Your task to perform on an android device: Search for usb-c to usb-a on amazon, select the first entry, add it to the cart, then select checkout. Image 0: 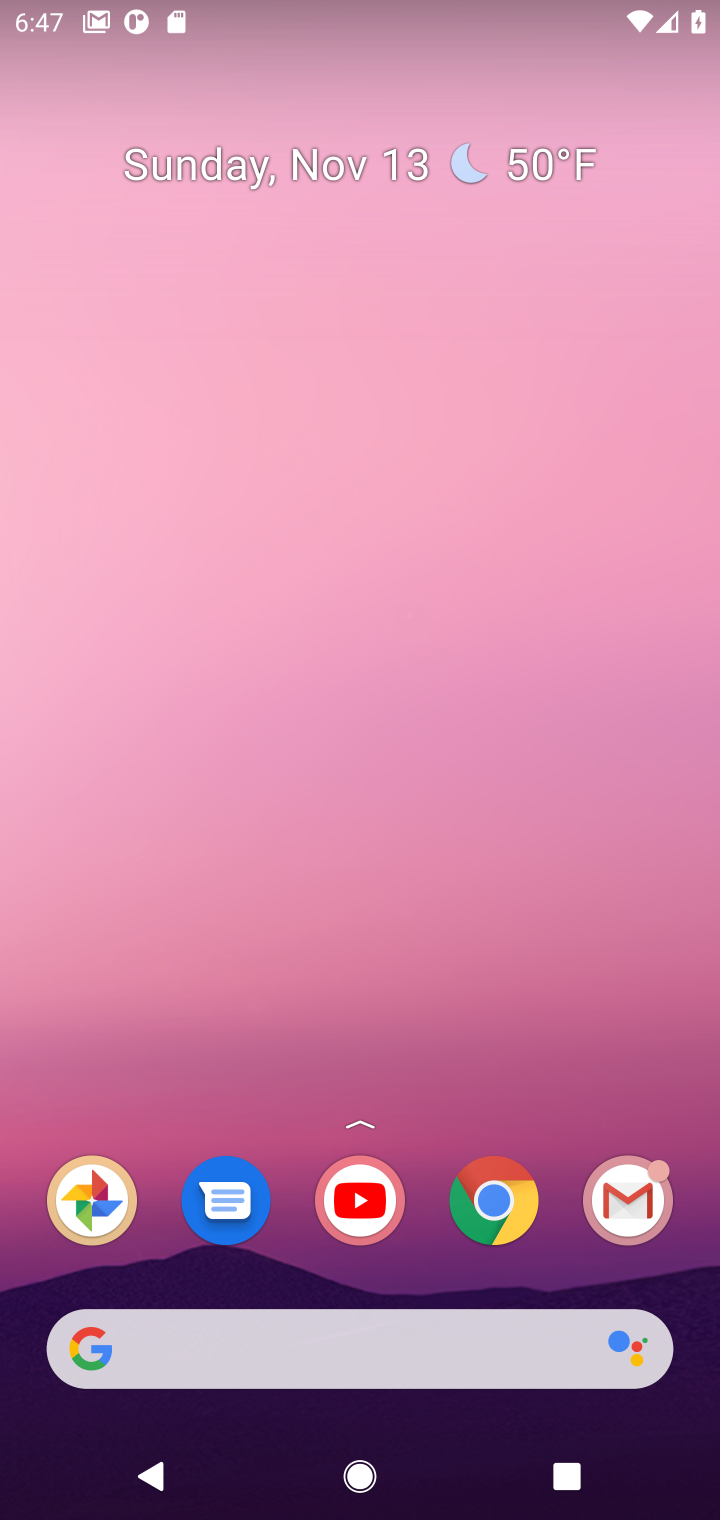
Step 0: click (507, 1185)
Your task to perform on an android device: Search for usb-c to usb-a on amazon, select the first entry, add it to the cart, then select checkout. Image 1: 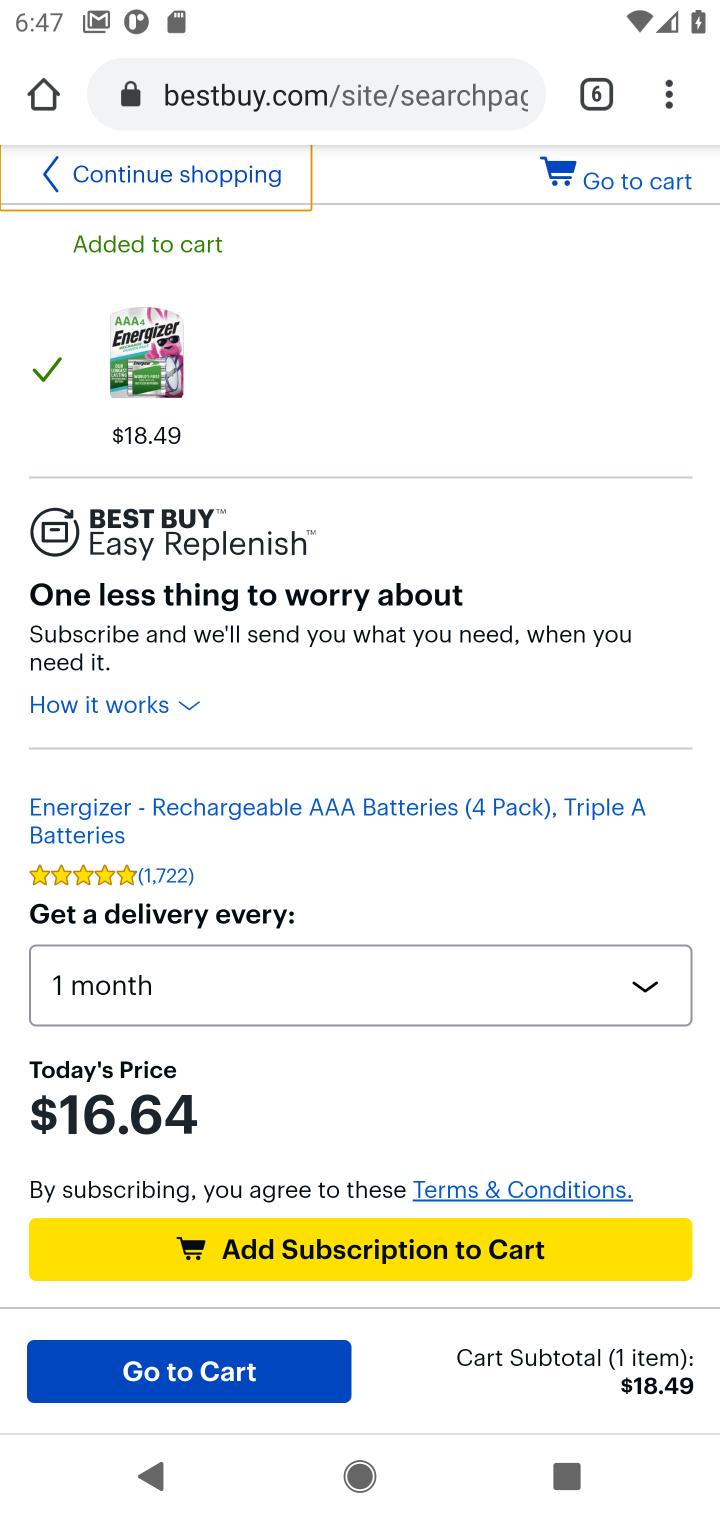
Step 1: click (604, 92)
Your task to perform on an android device: Search for usb-c to usb-a on amazon, select the first entry, add it to the cart, then select checkout. Image 2: 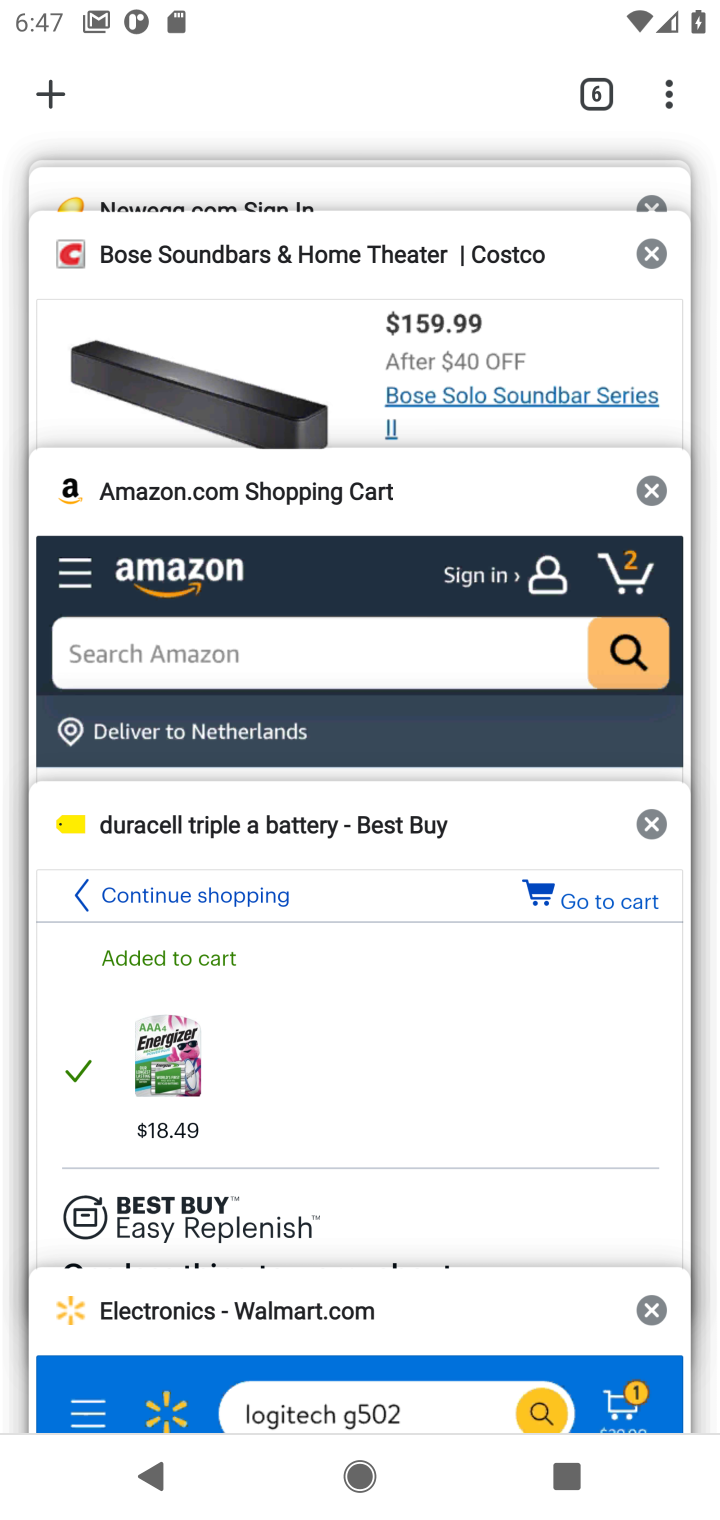
Step 2: click (394, 660)
Your task to perform on an android device: Search for usb-c to usb-a on amazon, select the first entry, add it to the cart, then select checkout. Image 3: 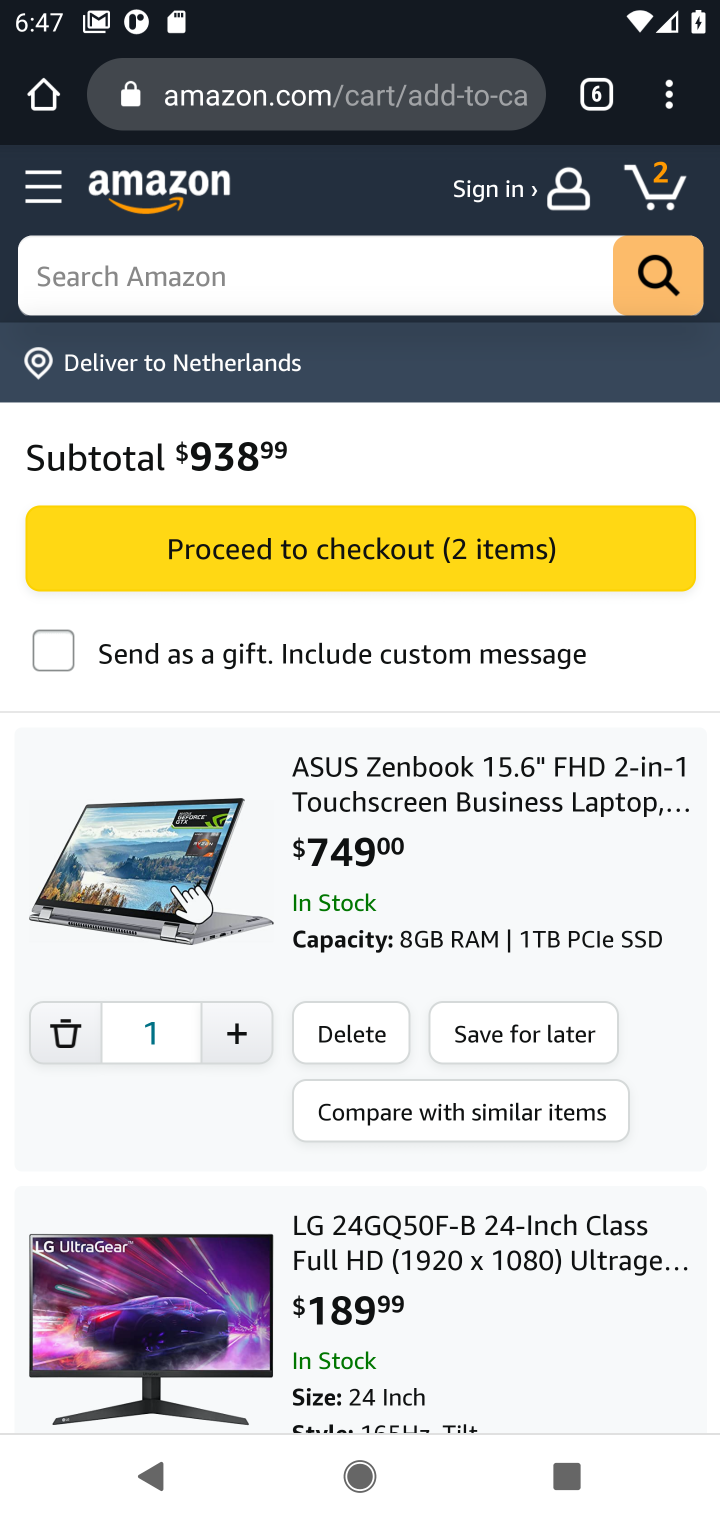
Step 3: click (199, 264)
Your task to perform on an android device: Search for usb-c to usb-a on amazon, select the first entry, add it to the cart, then select checkout. Image 4: 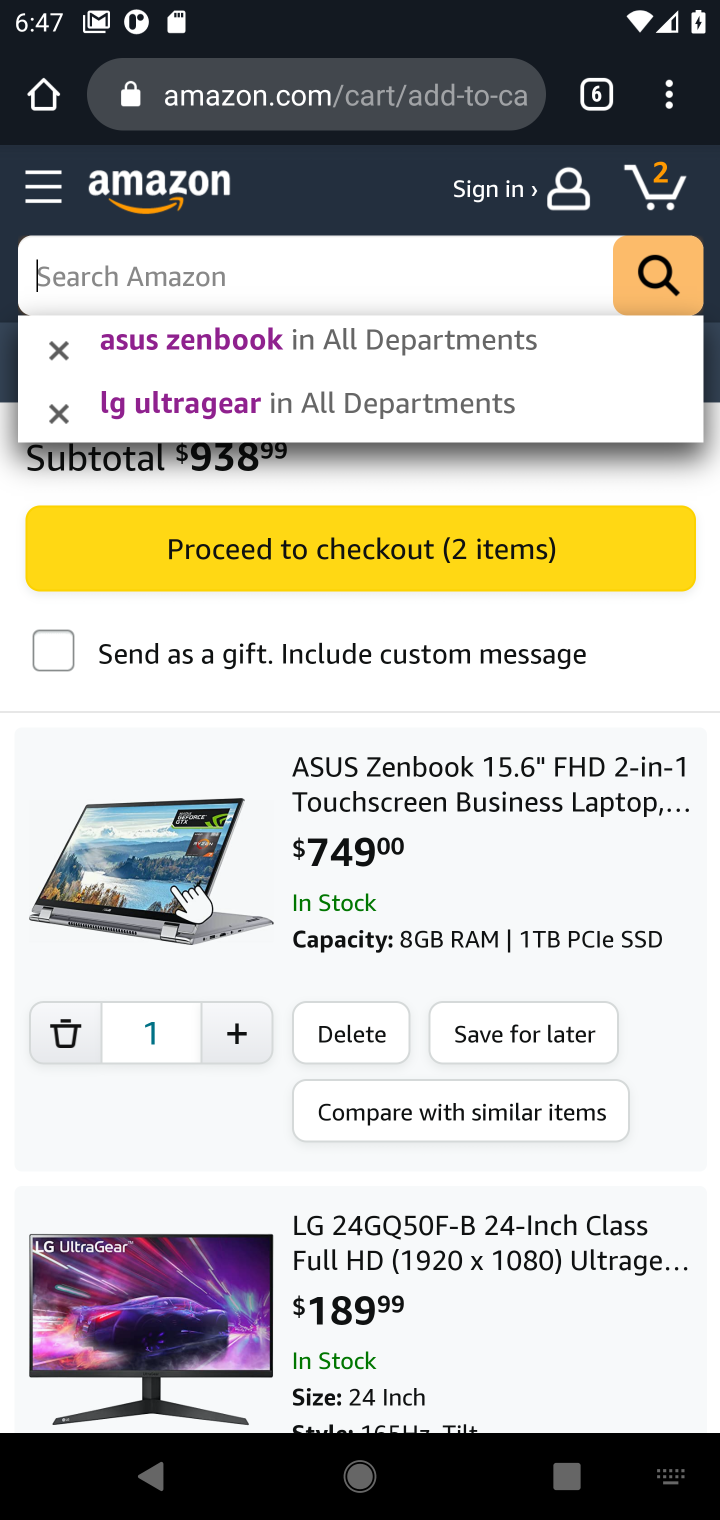
Step 4: type "usb-c to usb-a"
Your task to perform on an android device: Search for usb-c to usb-a on amazon, select the first entry, add it to the cart, then select checkout. Image 5: 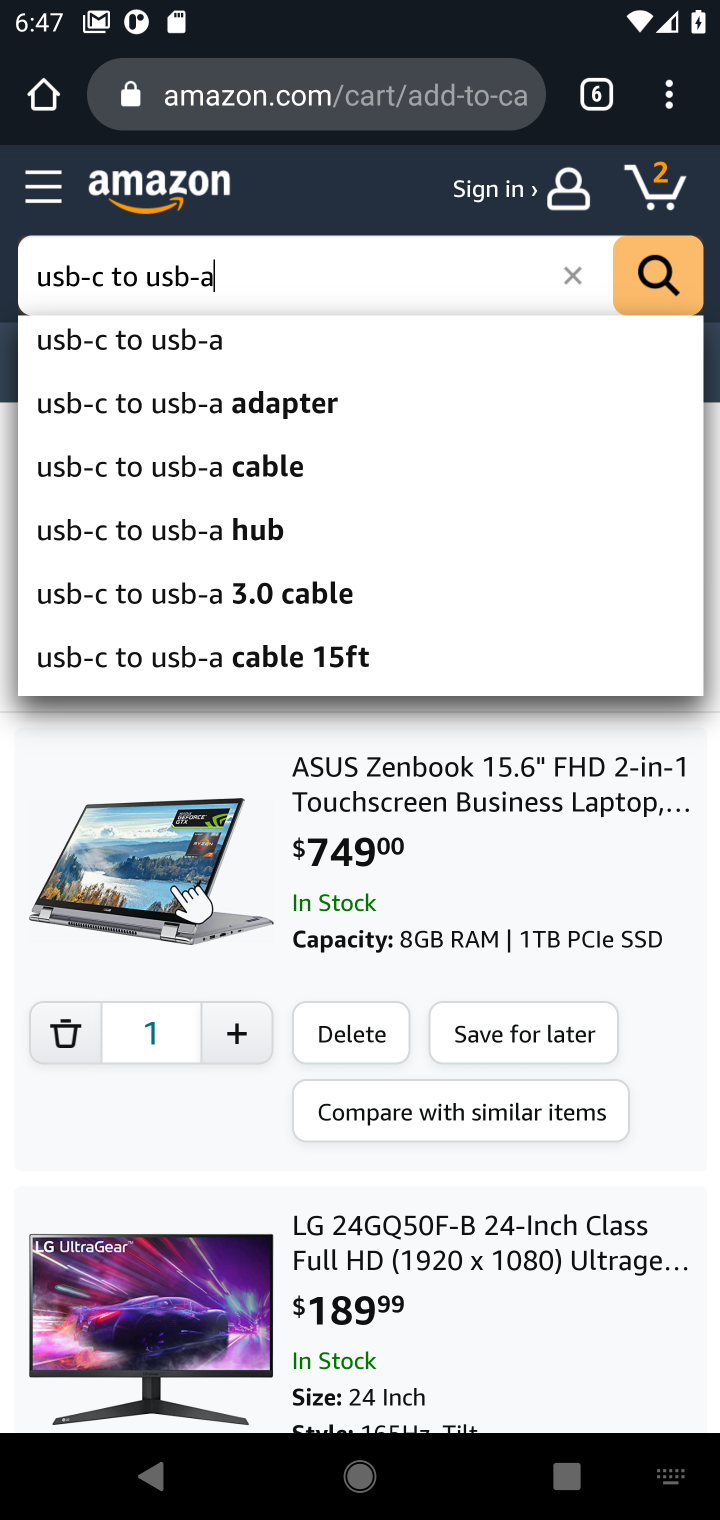
Step 5: click (168, 337)
Your task to perform on an android device: Search for usb-c to usb-a on amazon, select the first entry, add it to the cart, then select checkout. Image 6: 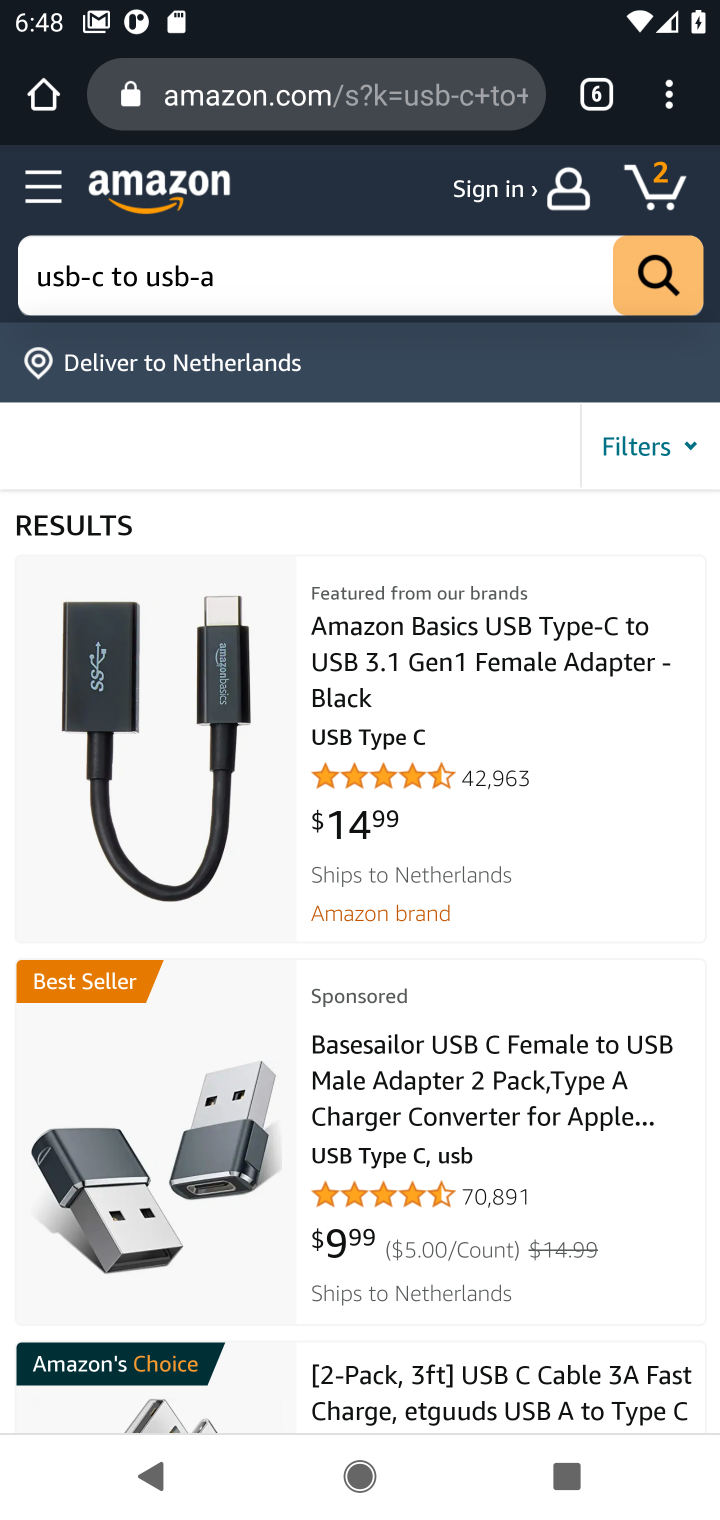
Step 6: drag from (556, 987) to (688, 500)
Your task to perform on an android device: Search for usb-c to usb-a on amazon, select the first entry, add it to the cart, then select checkout. Image 7: 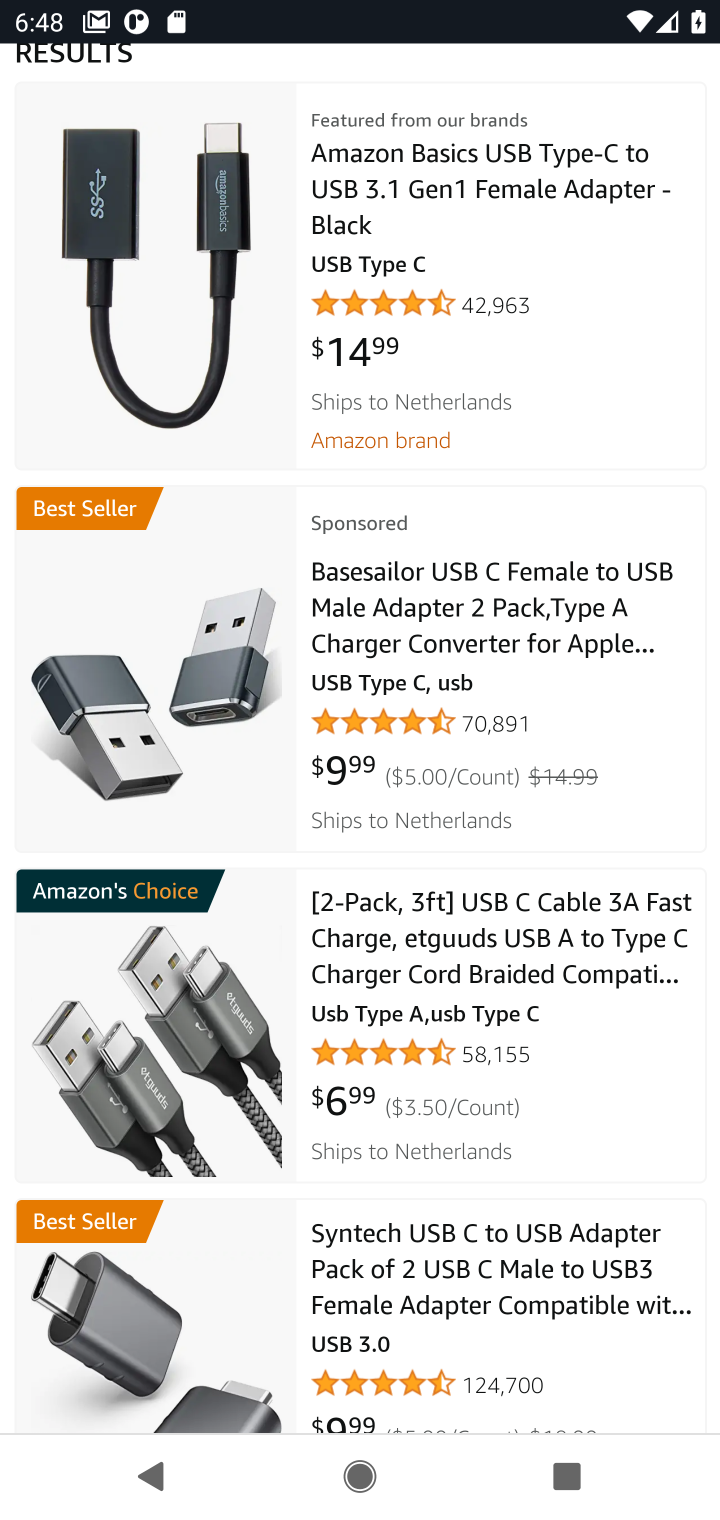
Step 7: click (559, 1250)
Your task to perform on an android device: Search for usb-c to usb-a on amazon, select the first entry, add it to the cart, then select checkout. Image 8: 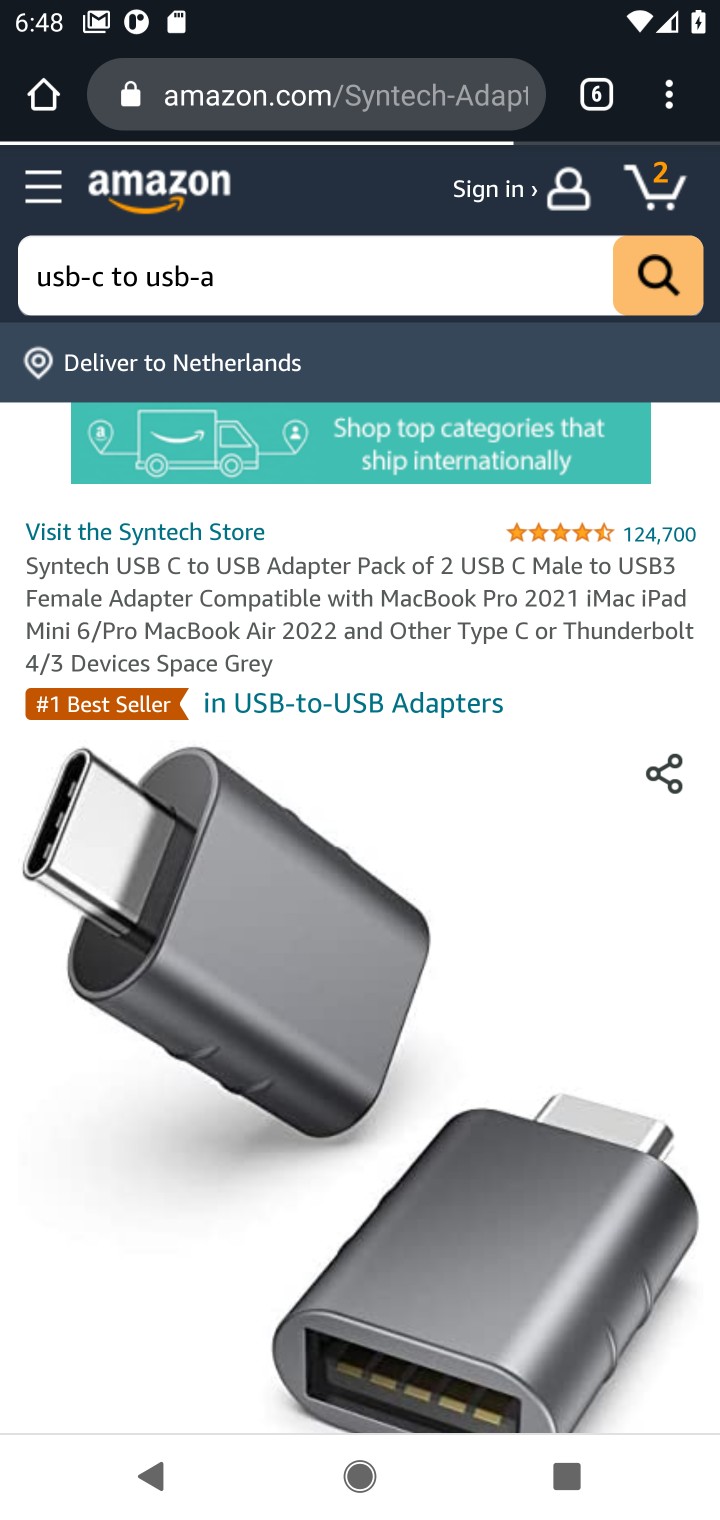
Step 8: drag from (570, 585) to (644, 299)
Your task to perform on an android device: Search for usb-c to usb-a on amazon, select the first entry, add it to the cart, then select checkout. Image 9: 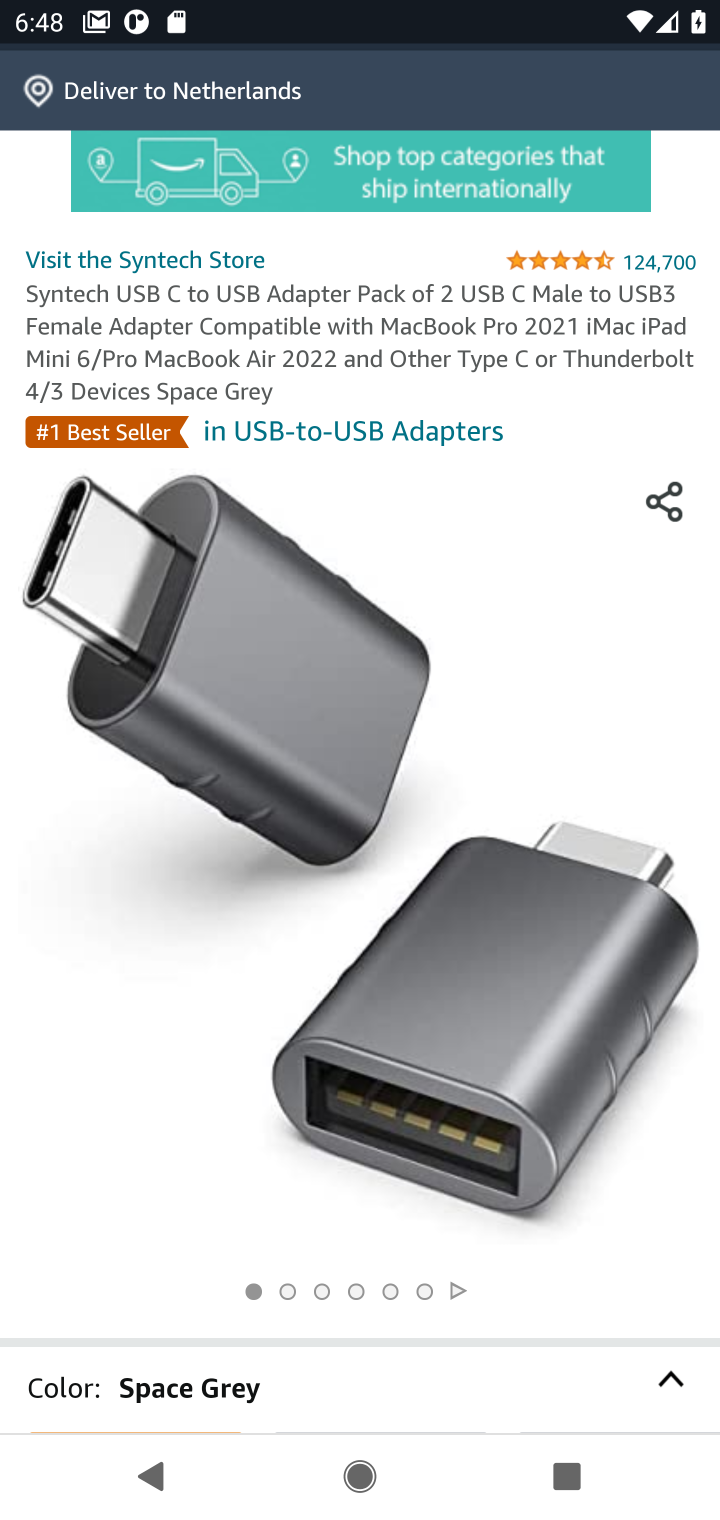
Step 9: drag from (186, 1177) to (384, 232)
Your task to perform on an android device: Search for usb-c to usb-a on amazon, select the first entry, add it to the cart, then select checkout. Image 10: 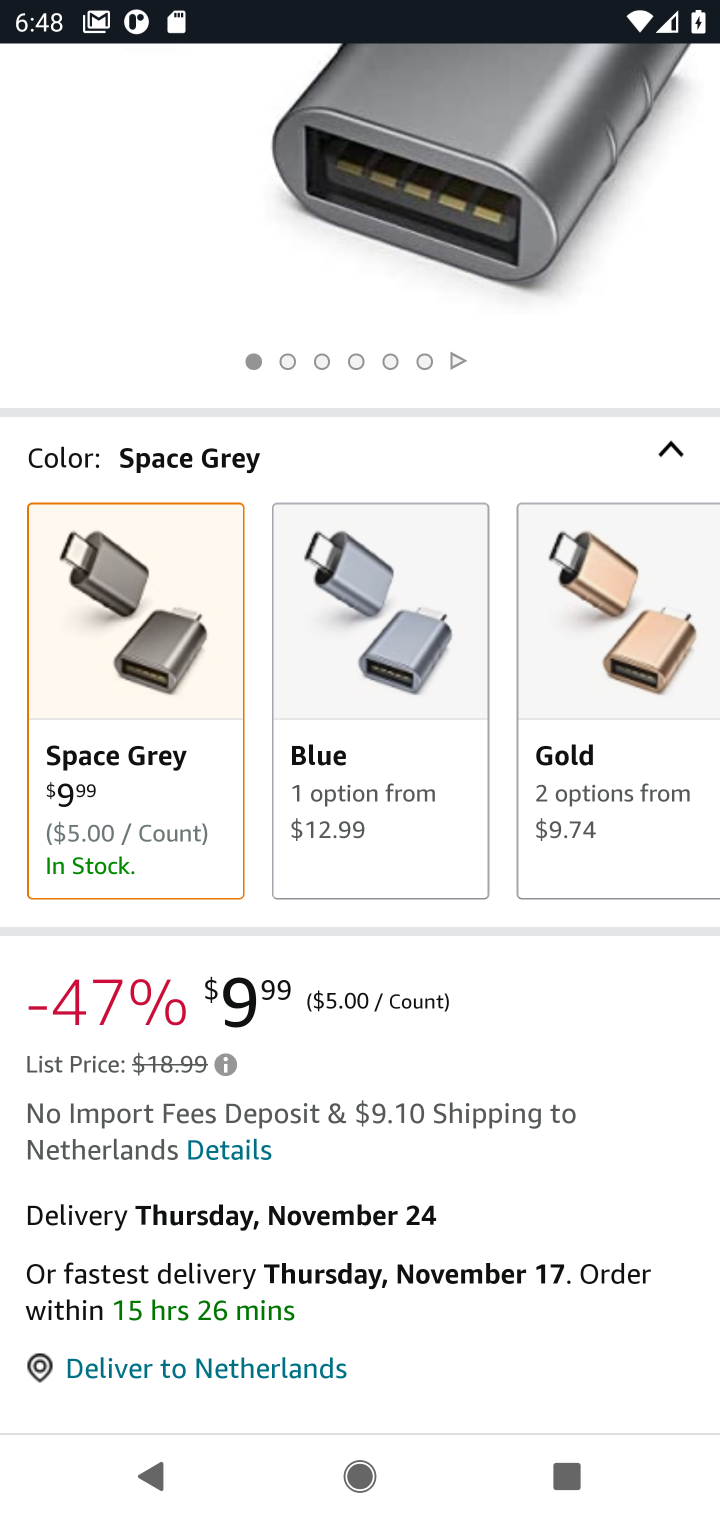
Step 10: drag from (388, 947) to (438, 474)
Your task to perform on an android device: Search for usb-c to usb-a on amazon, select the first entry, add it to the cart, then select checkout. Image 11: 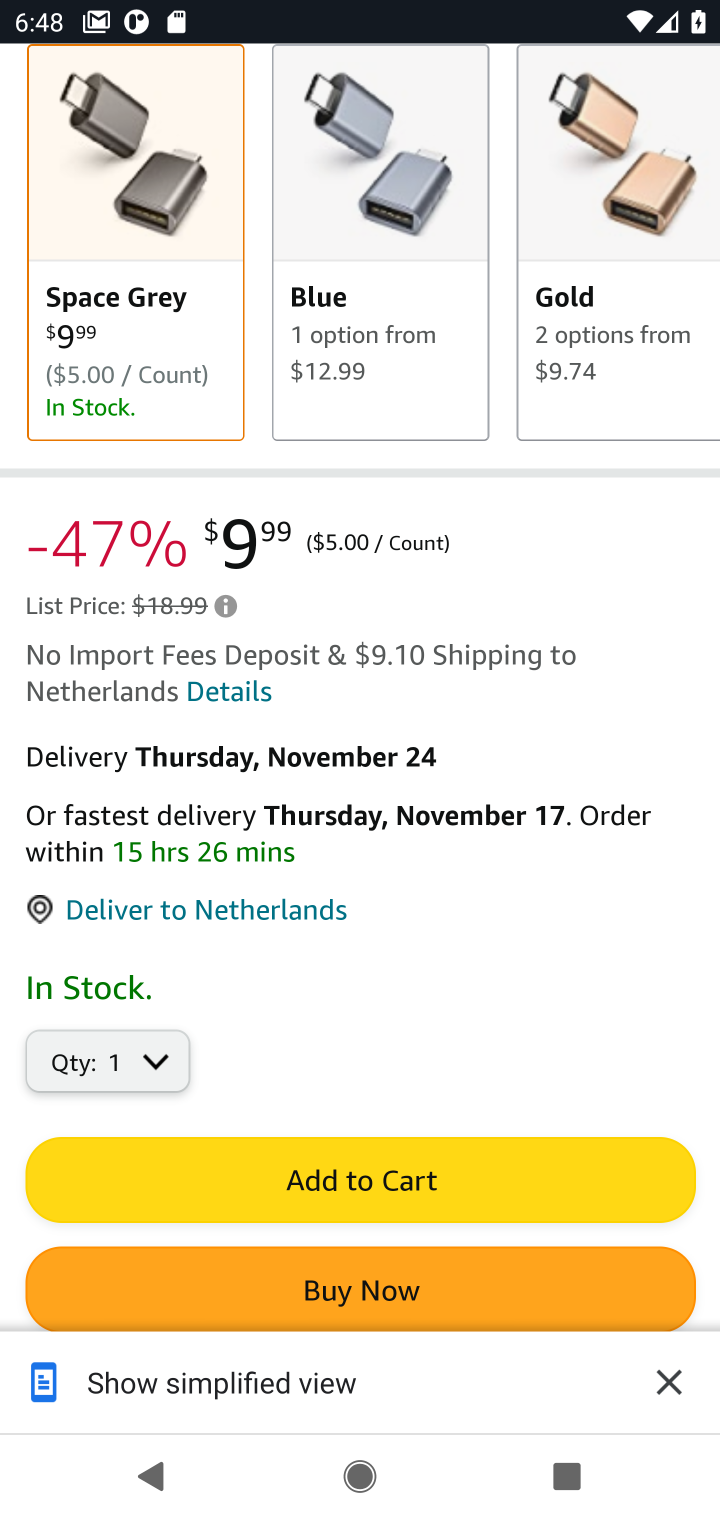
Step 11: click (378, 1175)
Your task to perform on an android device: Search for usb-c to usb-a on amazon, select the first entry, add it to the cart, then select checkout. Image 12: 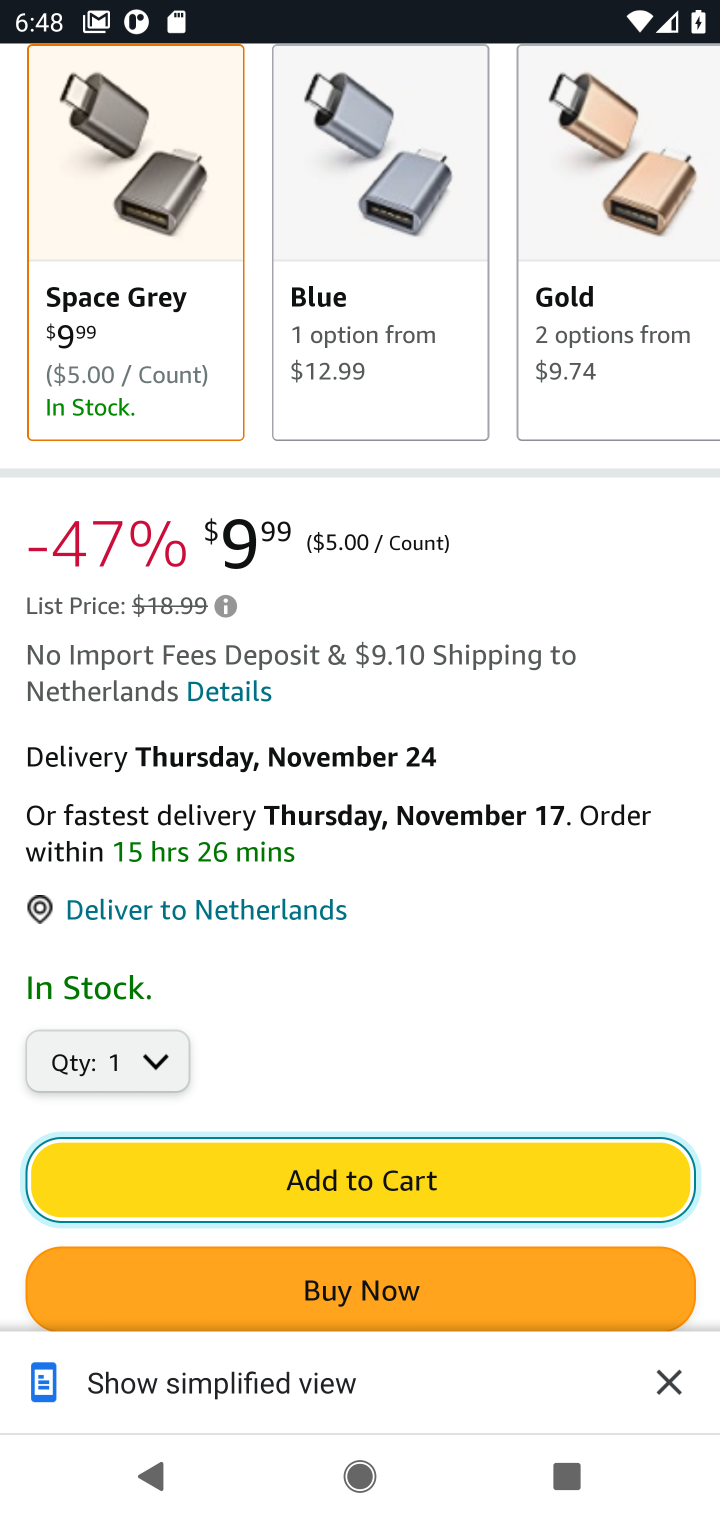
Step 12: click (668, 1384)
Your task to perform on an android device: Search for usb-c to usb-a on amazon, select the first entry, add it to the cart, then select checkout. Image 13: 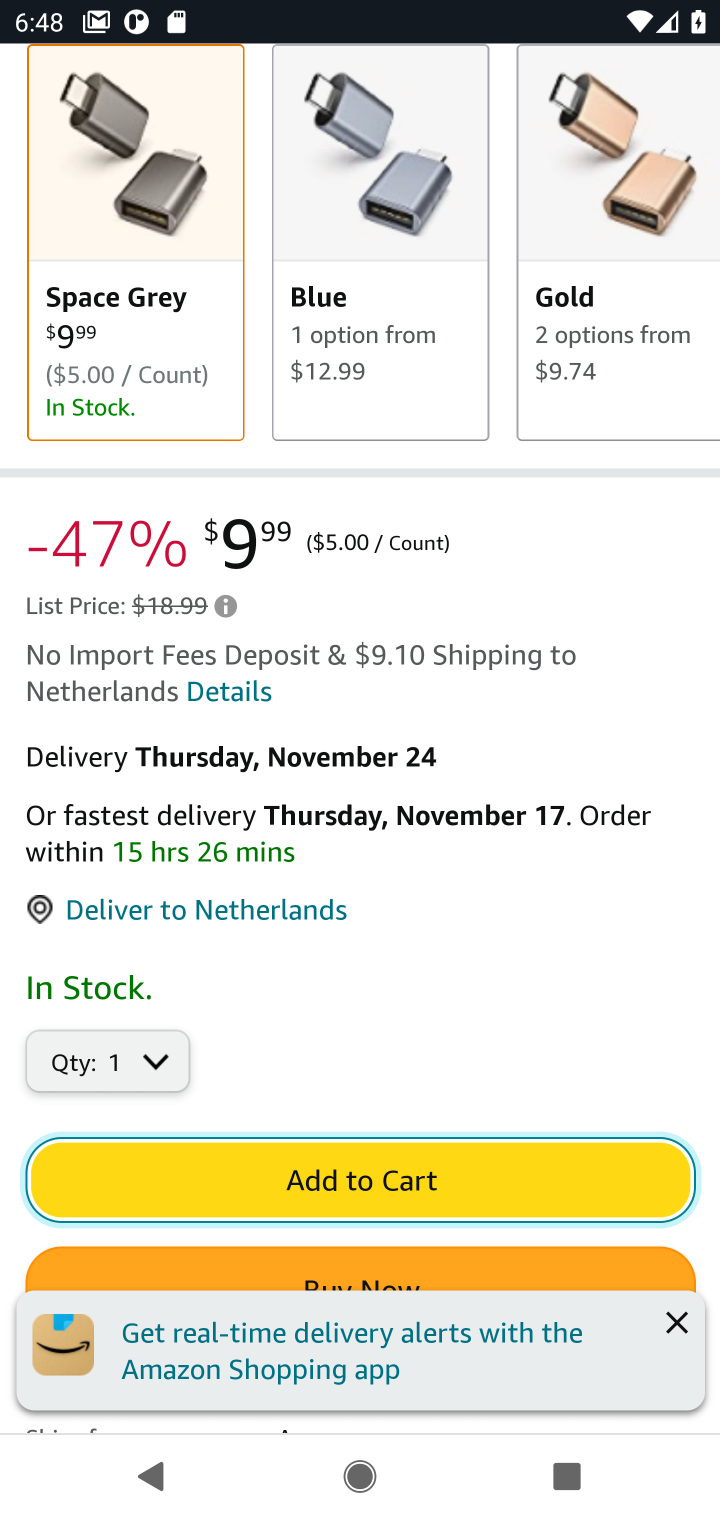
Step 13: click (332, 1175)
Your task to perform on an android device: Search for usb-c to usb-a on amazon, select the first entry, add it to the cart, then select checkout. Image 14: 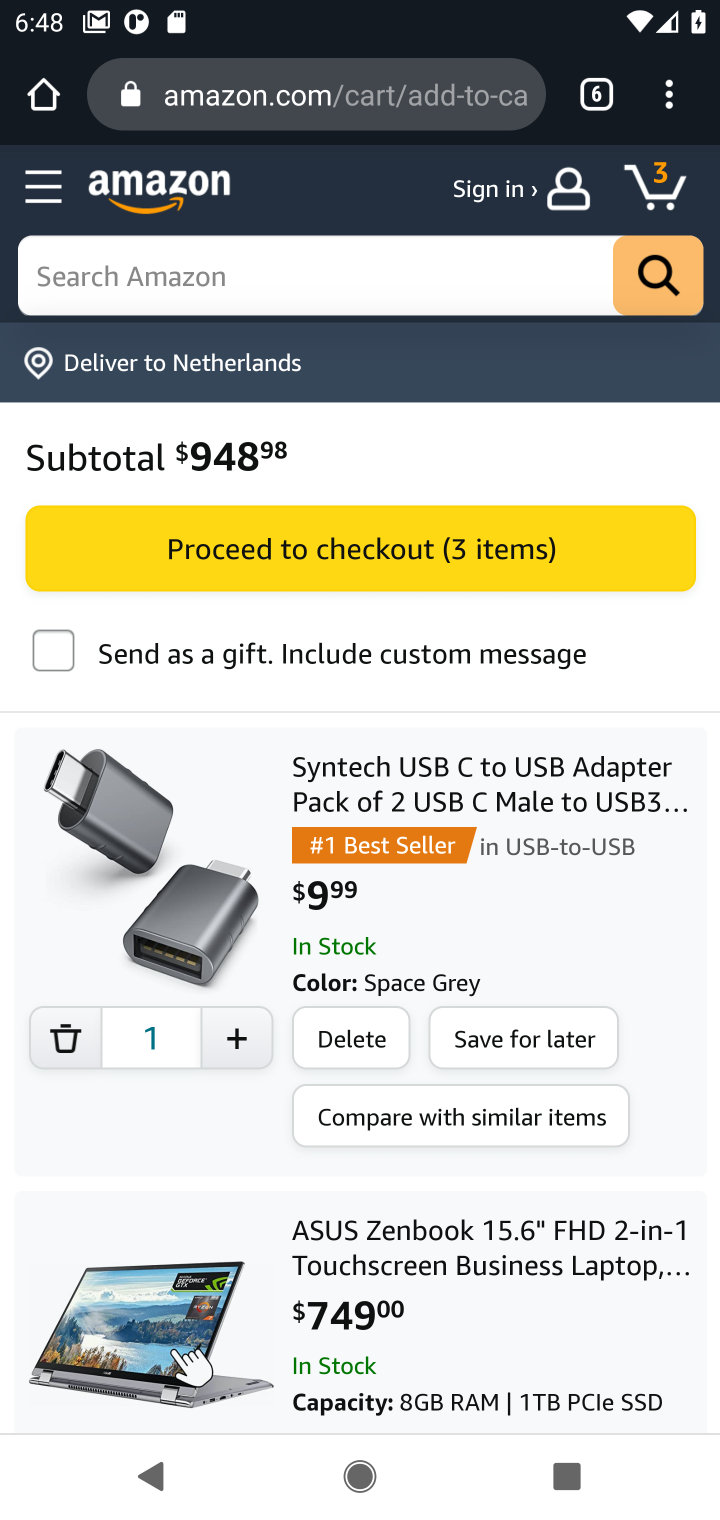
Step 14: task complete